Your task to perform on an android device: turn off airplane mode Image 0: 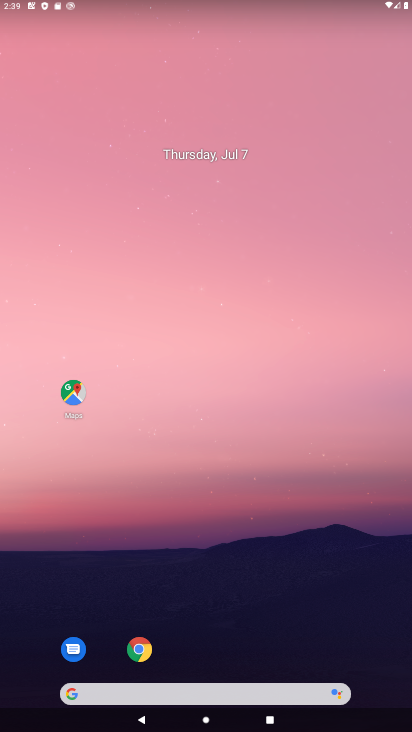
Step 0: drag from (336, 695) to (327, 100)
Your task to perform on an android device: turn off airplane mode Image 1: 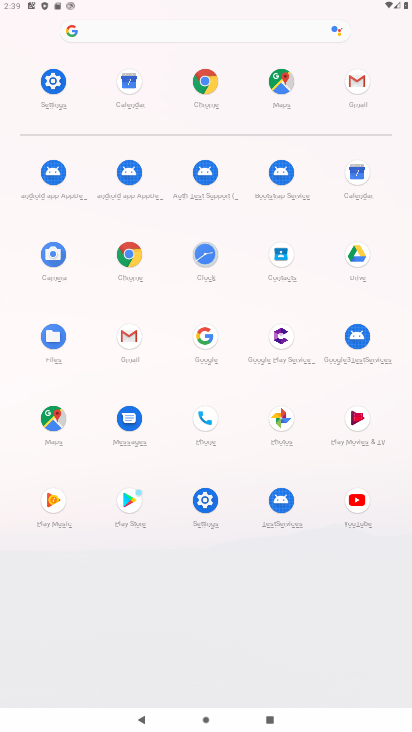
Step 1: click (88, 632)
Your task to perform on an android device: turn off airplane mode Image 2: 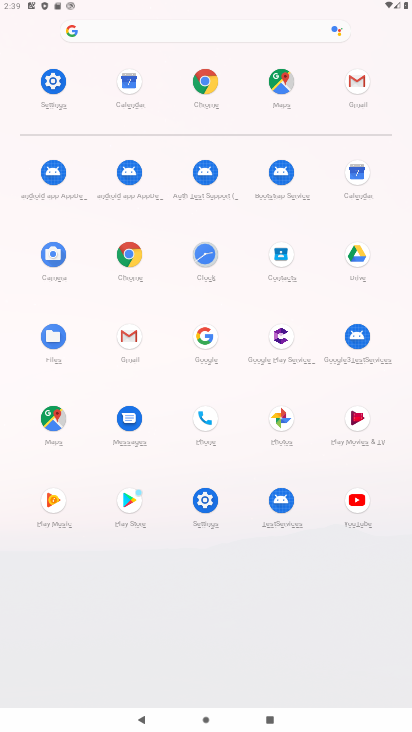
Step 2: task complete